Your task to perform on an android device: empty trash in the gmail app Image 0: 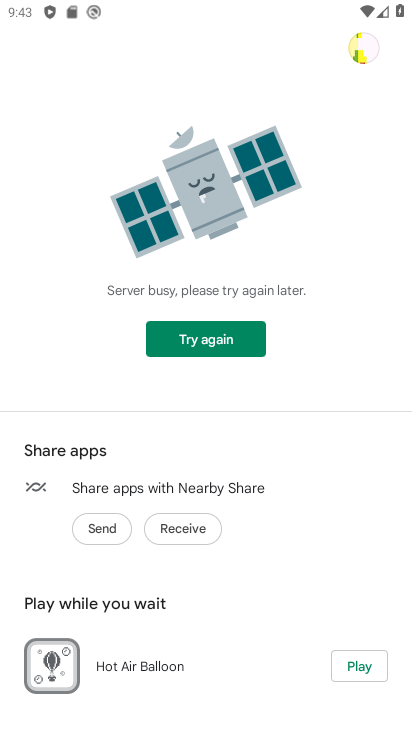
Step 0: press home button
Your task to perform on an android device: empty trash in the gmail app Image 1: 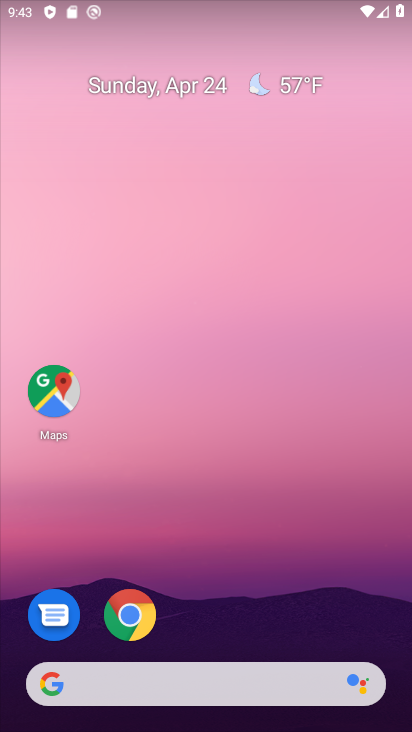
Step 1: drag from (334, 633) to (253, 82)
Your task to perform on an android device: empty trash in the gmail app Image 2: 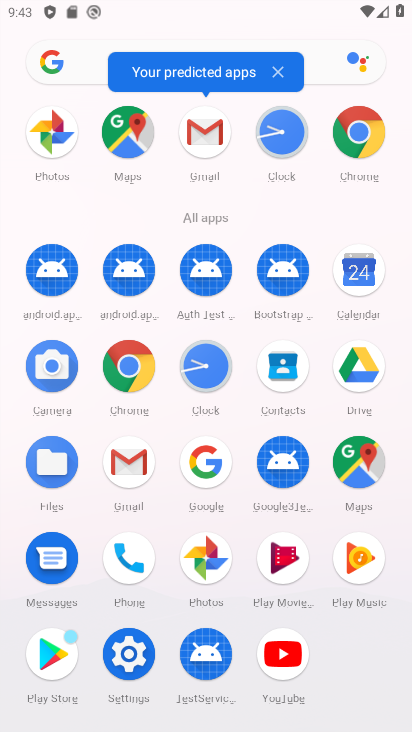
Step 2: click (128, 457)
Your task to perform on an android device: empty trash in the gmail app Image 3: 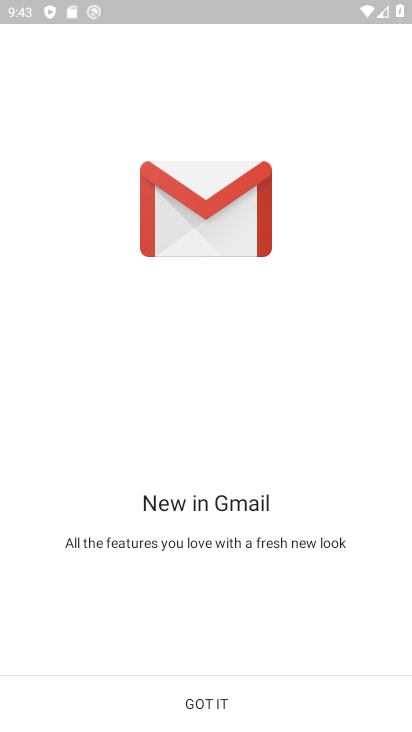
Step 3: click (201, 704)
Your task to perform on an android device: empty trash in the gmail app Image 4: 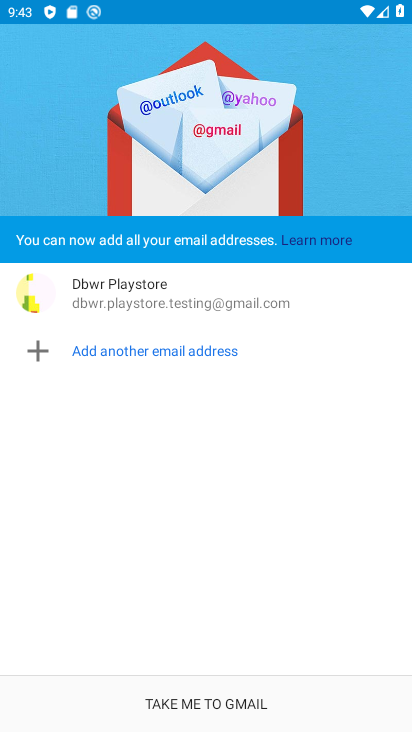
Step 4: click (201, 704)
Your task to perform on an android device: empty trash in the gmail app Image 5: 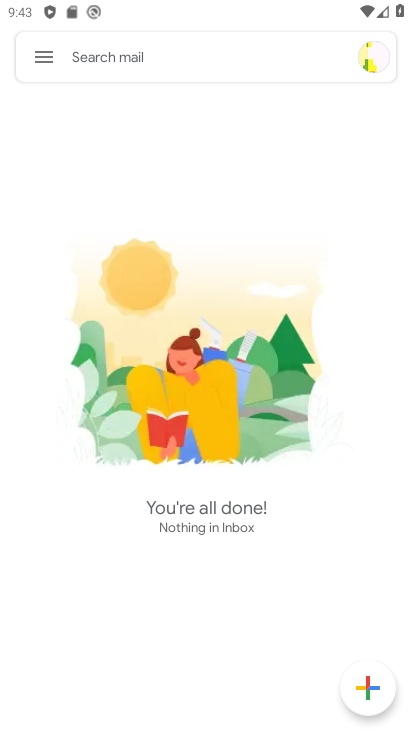
Step 5: click (48, 61)
Your task to perform on an android device: empty trash in the gmail app Image 6: 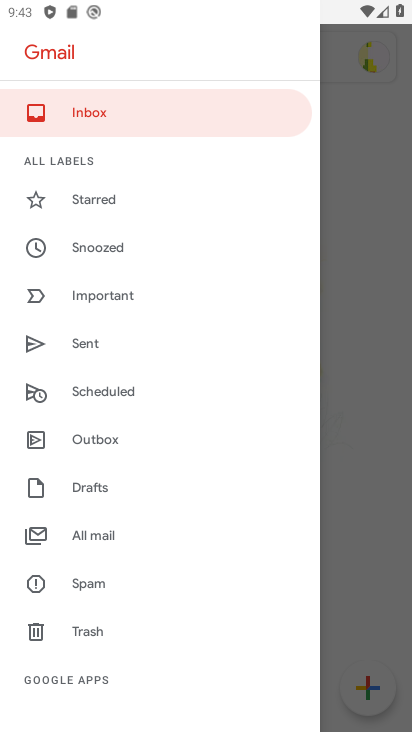
Step 6: click (88, 628)
Your task to perform on an android device: empty trash in the gmail app Image 7: 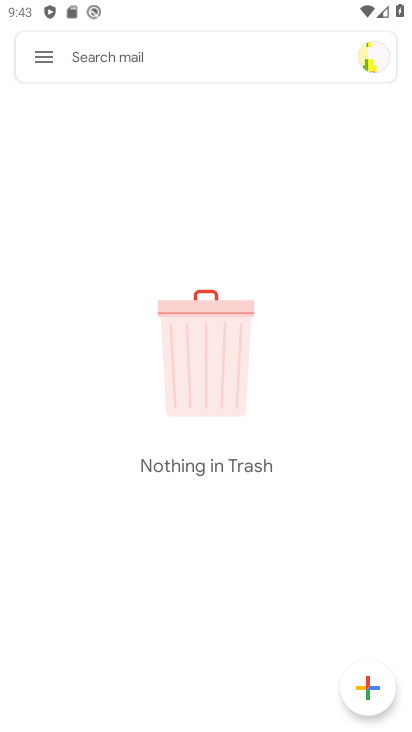
Step 7: task complete